Your task to perform on an android device: turn on bluetooth scan Image 0: 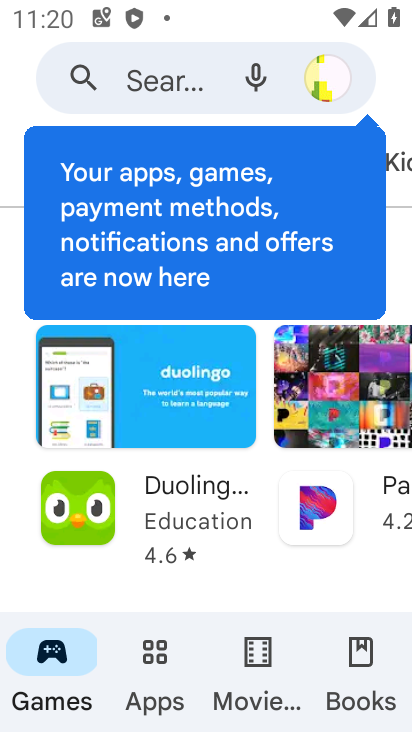
Step 0: press home button
Your task to perform on an android device: turn on bluetooth scan Image 1: 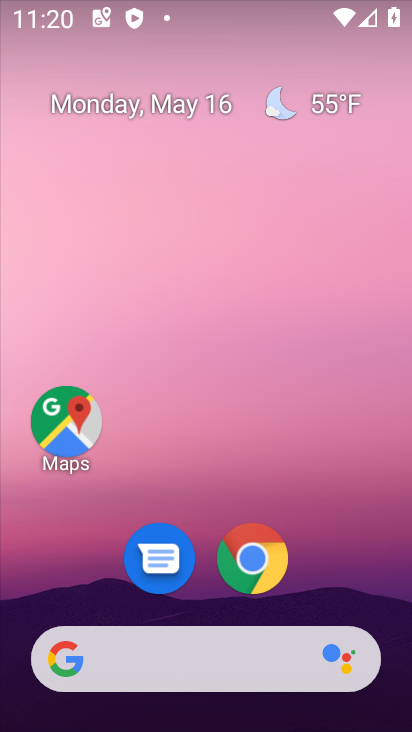
Step 1: drag from (325, 530) to (309, 145)
Your task to perform on an android device: turn on bluetooth scan Image 2: 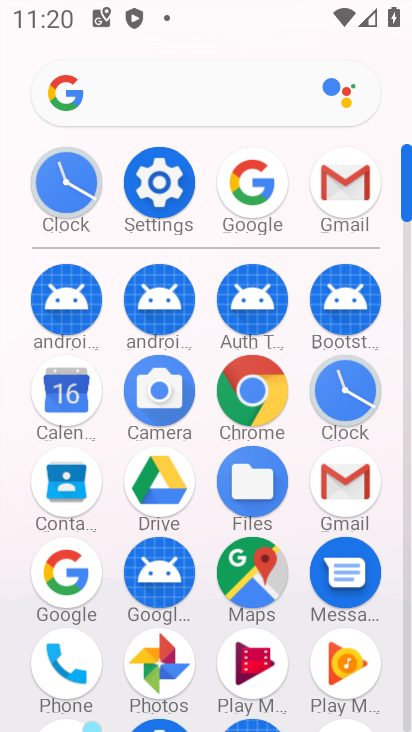
Step 2: click (167, 183)
Your task to perform on an android device: turn on bluetooth scan Image 3: 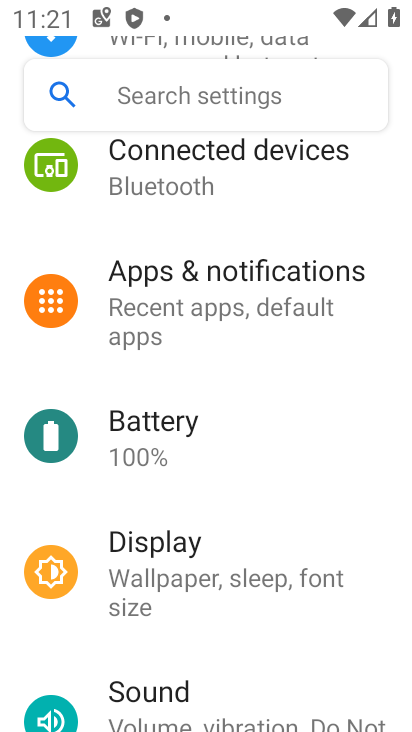
Step 3: drag from (233, 235) to (272, 98)
Your task to perform on an android device: turn on bluetooth scan Image 4: 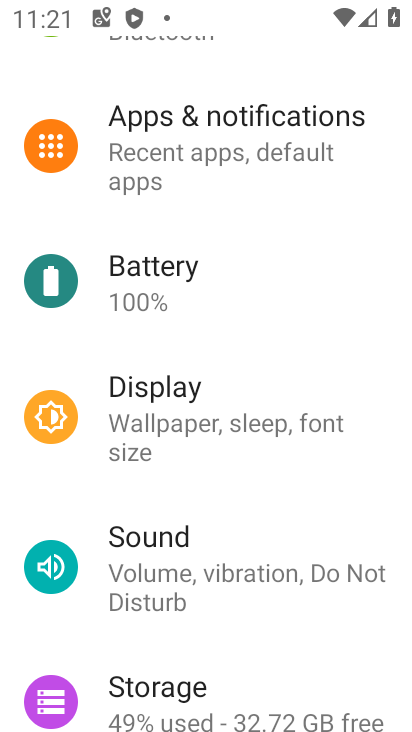
Step 4: drag from (223, 565) to (230, 130)
Your task to perform on an android device: turn on bluetooth scan Image 5: 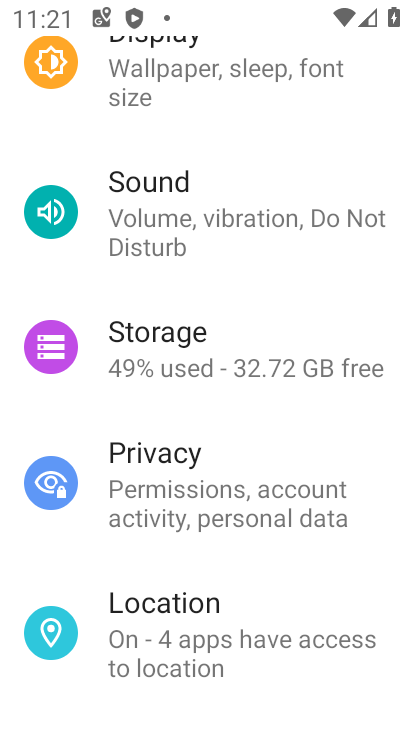
Step 5: drag from (223, 608) to (225, 510)
Your task to perform on an android device: turn on bluetooth scan Image 6: 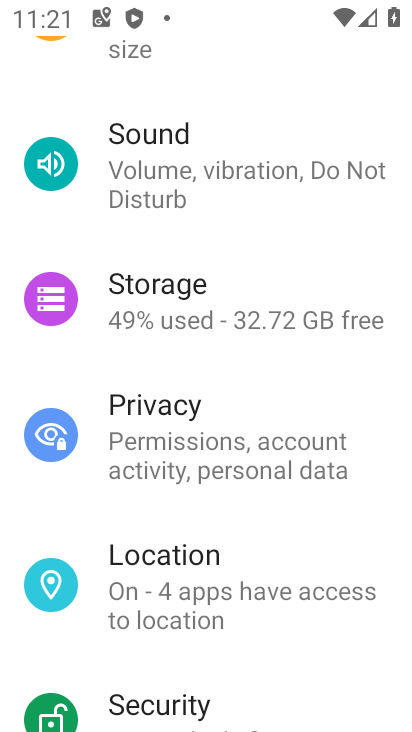
Step 6: click (217, 587)
Your task to perform on an android device: turn on bluetooth scan Image 7: 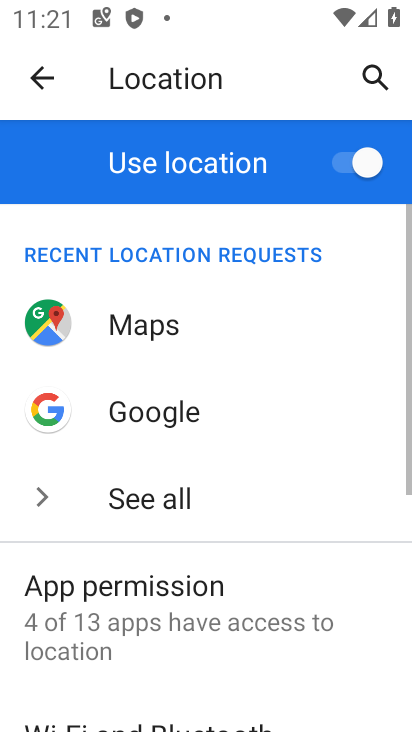
Step 7: drag from (217, 587) to (237, 320)
Your task to perform on an android device: turn on bluetooth scan Image 8: 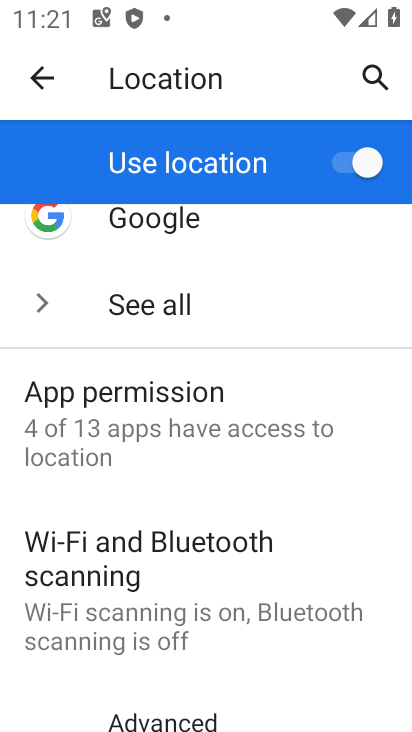
Step 8: click (188, 590)
Your task to perform on an android device: turn on bluetooth scan Image 9: 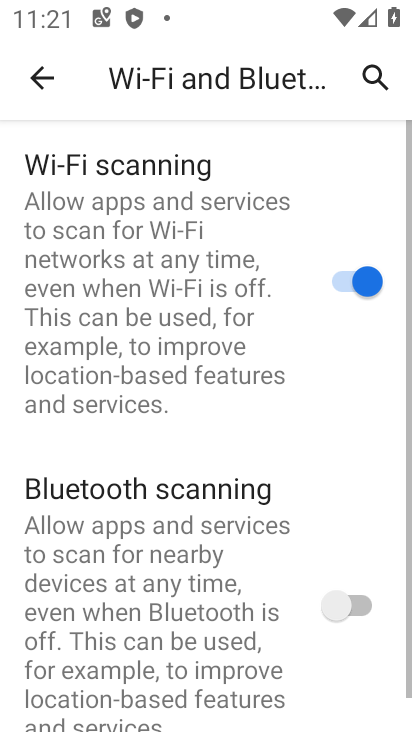
Step 9: click (342, 619)
Your task to perform on an android device: turn on bluetooth scan Image 10: 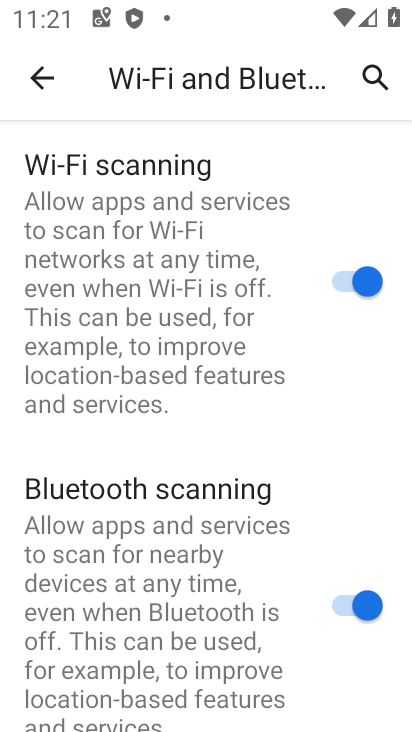
Step 10: task complete